Your task to perform on an android device: turn on translation in the chrome app Image 0: 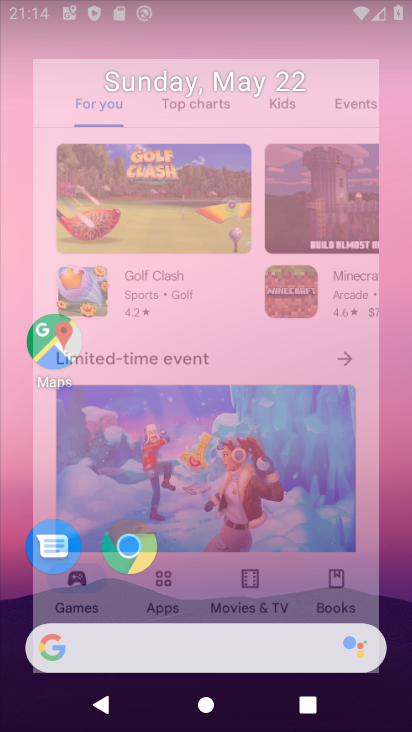
Step 0: drag from (195, 589) to (244, 107)
Your task to perform on an android device: turn on translation in the chrome app Image 1: 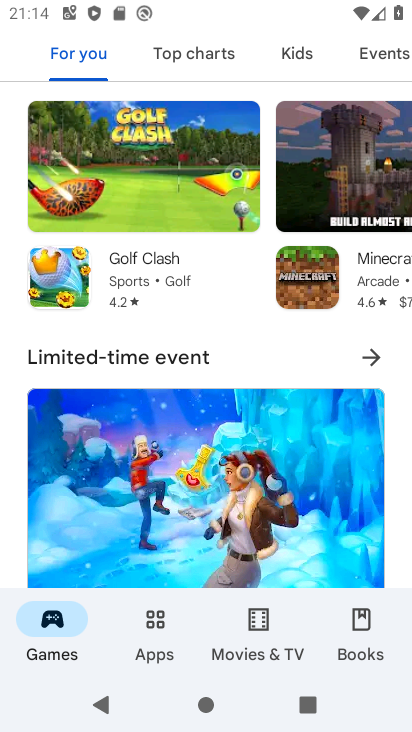
Step 1: press home button
Your task to perform on an android device: turn on translation in the chrome app Image 2: 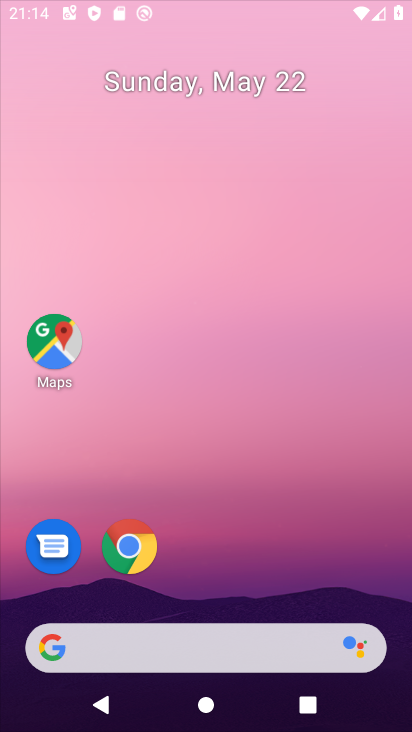
Step 2: drag from (200, 569) to (252, 283)
Your task to perform on an android device: turn on translation in the chrome app Image 3: 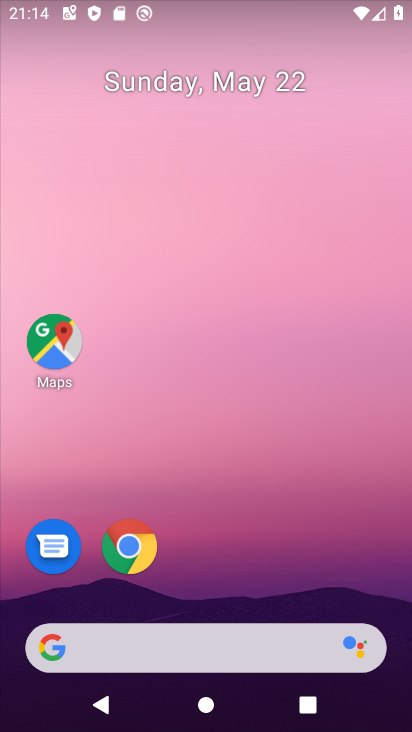
Step 3: drag from (212, 605) to (230, 65)
Your task to perform on an android device: turn on translation in the chrome app Image 4: 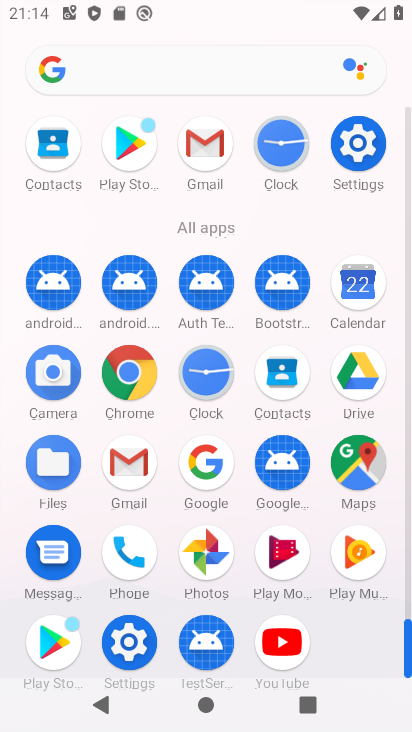
Step 4: click (128, 375)
Your task to perform on an android device: turn on translation in the chrome app Image 5: 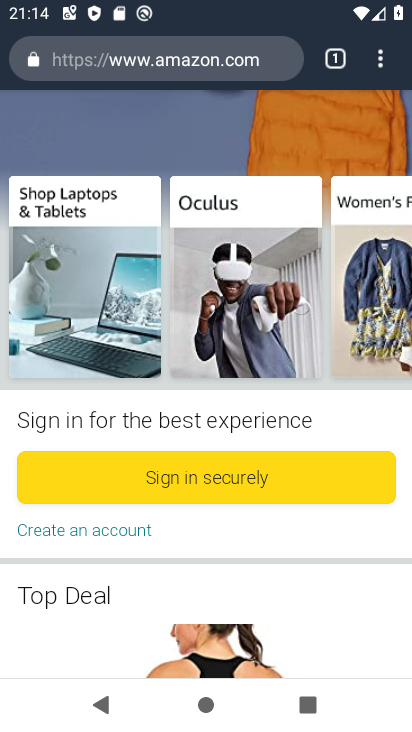
Step 5: click (378, 56)
Your task to perform on an android device: turn on translation in the chrome app Image 6: 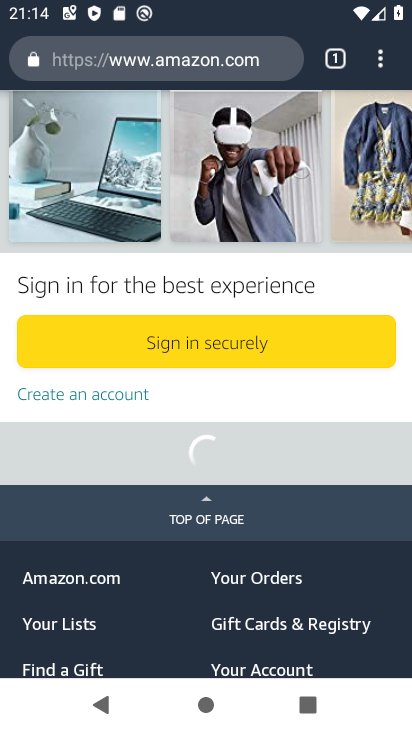
Step 6: click (384, 64)
Your task to perform on an android device: turn on translation in the chrome app Image 7: 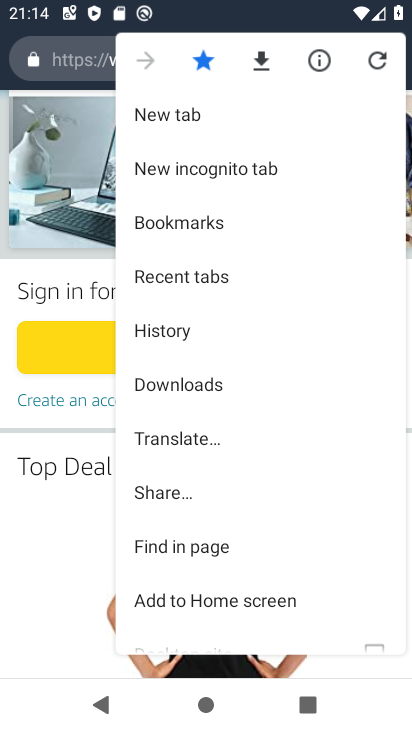
Step 7: drag from (236, 542) to (281, 71)
Your task to perform on an android device: turn on translation in the chrome app Image 8: 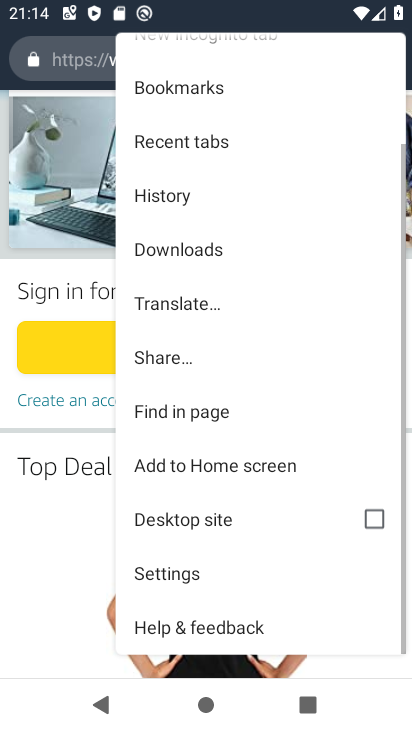
Step 8: click (217, 582)
Your task to perform on an android device: turn on translation in the chrome app Image 9: 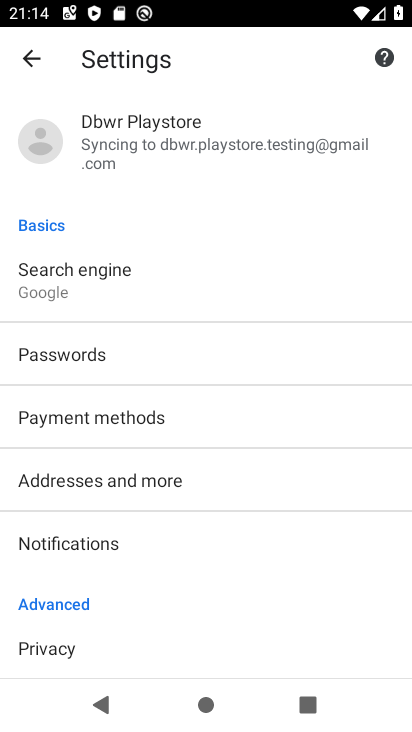
Step 9: drag from (173, 589) to (313, 29)
Your task to perform on an android device: turn on translation in the chrome app Image 10: 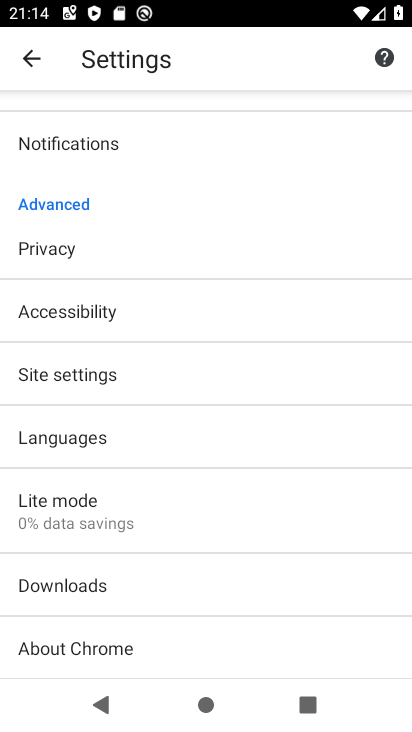
Step 10: drag from (164, 588) to (219, 210)
Your task to perform on an android device: turn on translation in the chrome app Image 11: 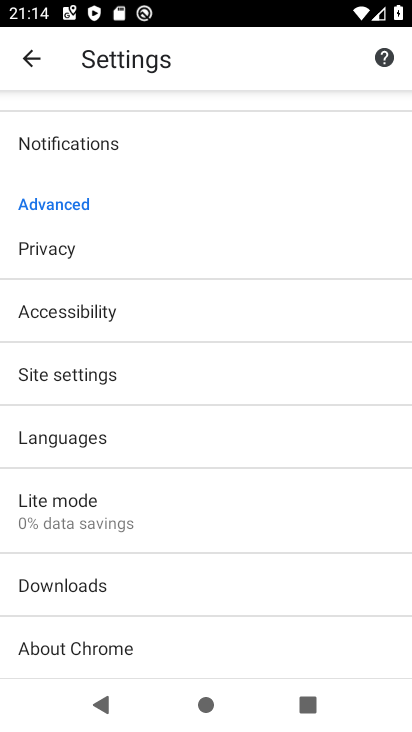
Step 11: click (161, 439)
Your task to perform on an android device: turn on translation in the chrome app Image 12: 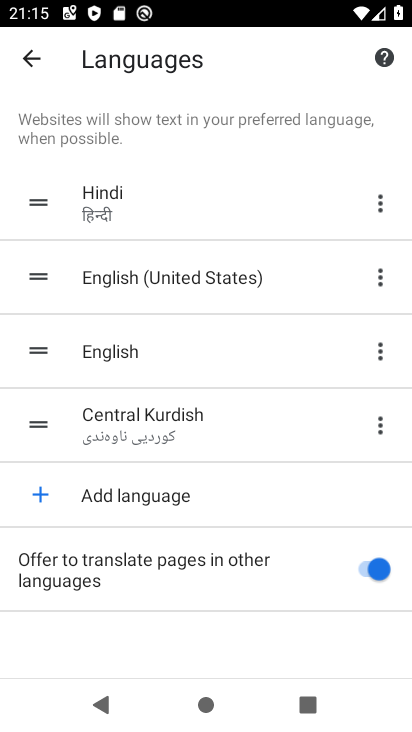
Step 12: task complete